Your task to perform on an android device: Open Amazon Image 0: 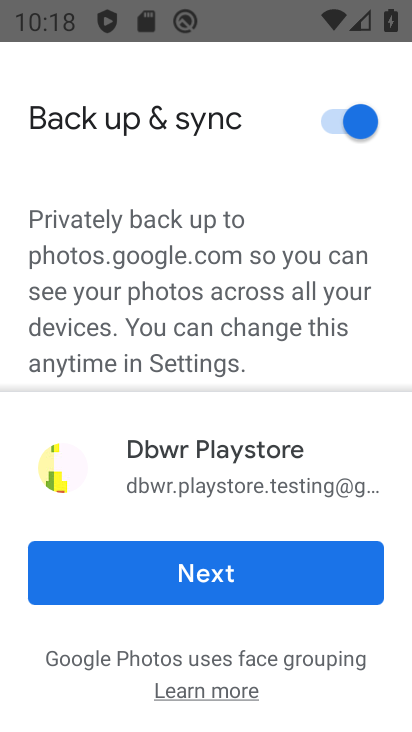
Step 0: press home button
Your task to perform on an android device: Open Amazon Image 1: 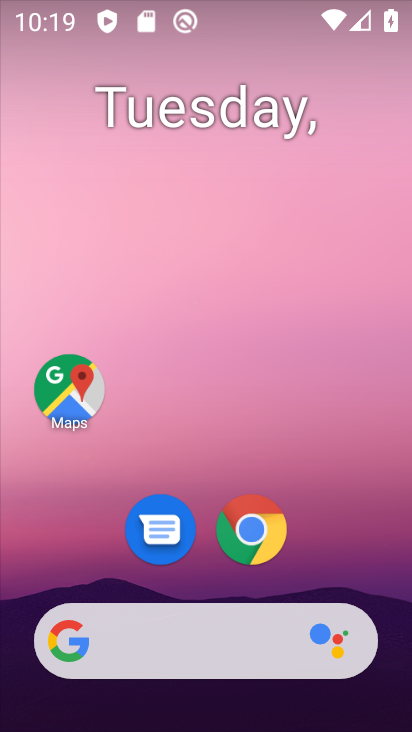
Step 1: click (245, 524)
Your task to perform on an android device: Open Amazon Image 2: 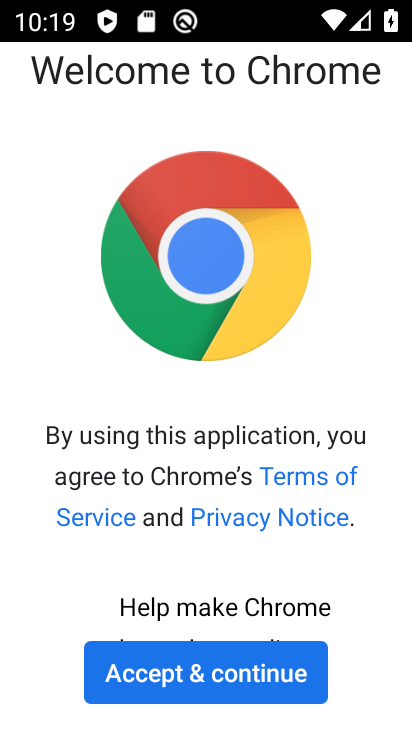
Step 2: click (141, 671)
Your task to perform on an android device: Open Amazon Image 3: 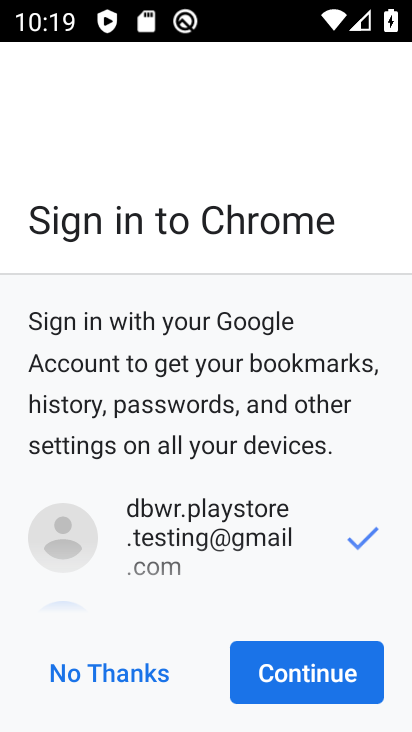
Step 3: click (306, 680)
Your task to perform on an android device: Open Amazon Image 4: 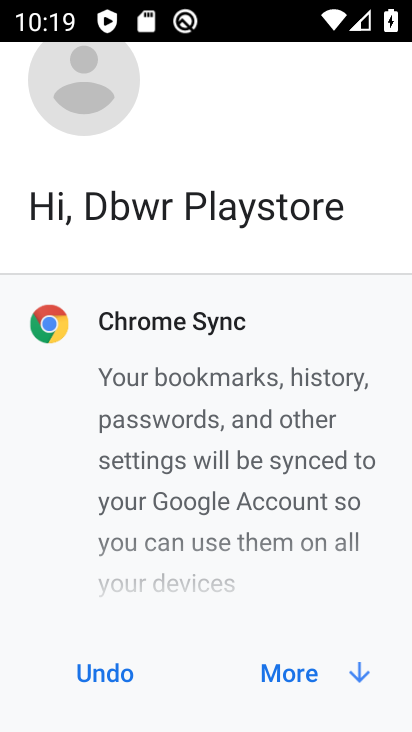
Step 4: click (306, 680)
Your task to perform on an android device: Open Amazon Image 5: 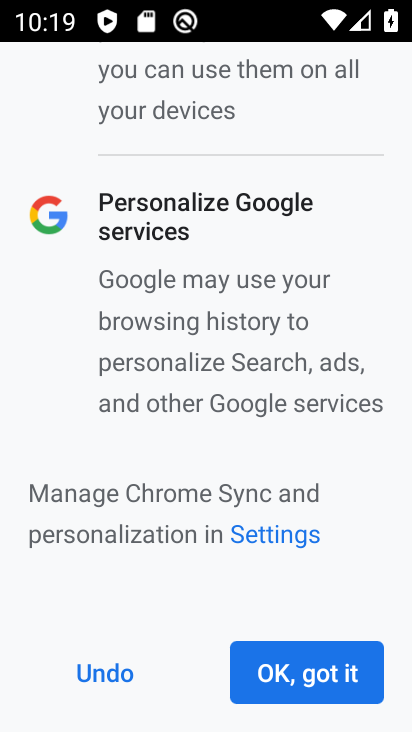
Step 5: click (306, 680)
Your task to perform on an android device: Open Amazon Image 6: 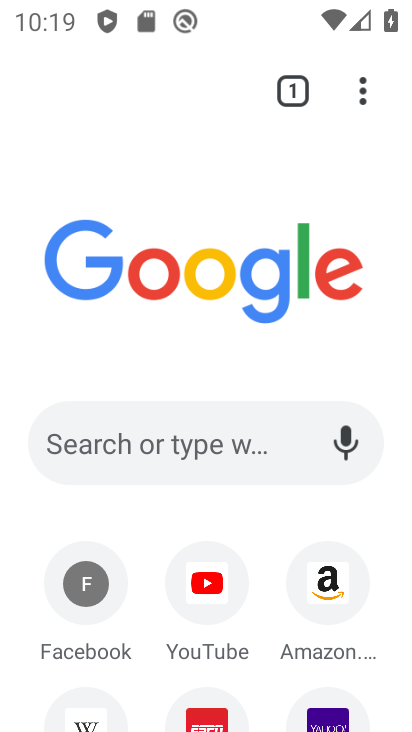
Step 6: click (316, 574)
Your task to perform on an android device: Open Amazon Image 7: 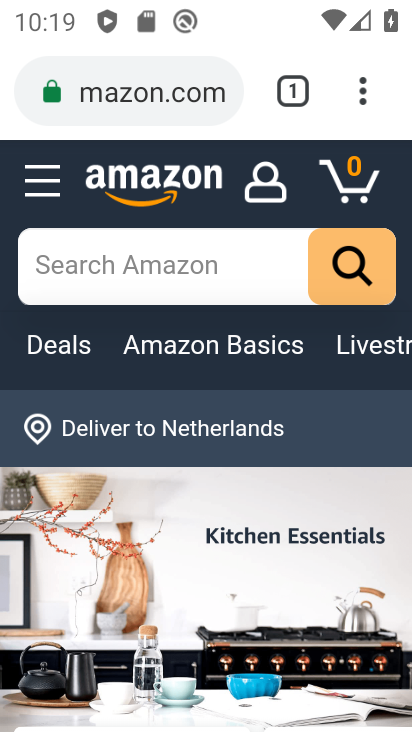
Step 7: task complete